Your task to perform on an android device: turn on wifi Image 0: 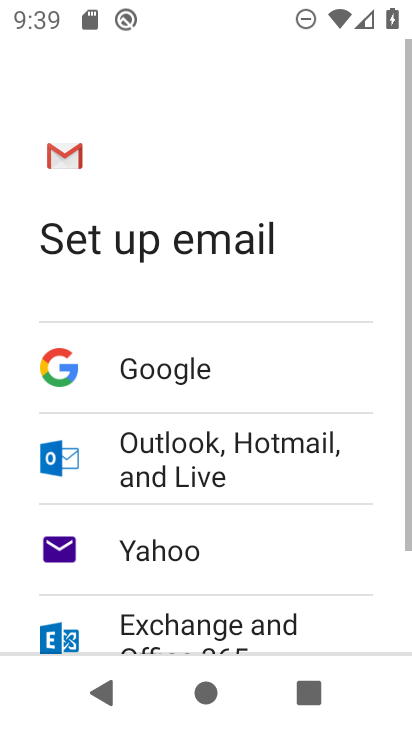
Step 0: press home button
Your task to perform on an android device: turn on wifi Image 1: 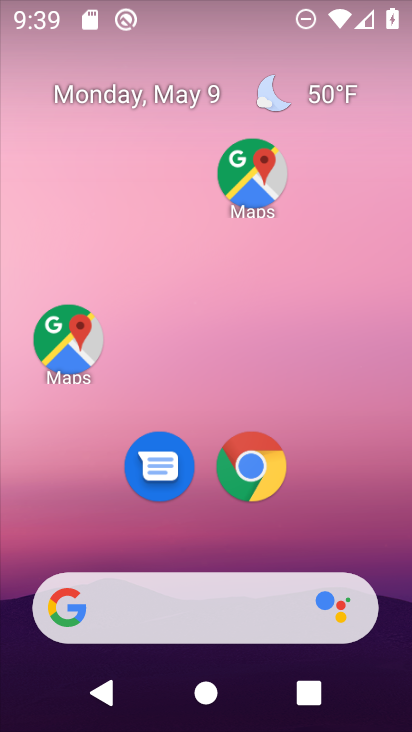
Step 1: drag from (213, 555) to (219, 34)
Your task to perform on an android device: turn on wifi Image 2: 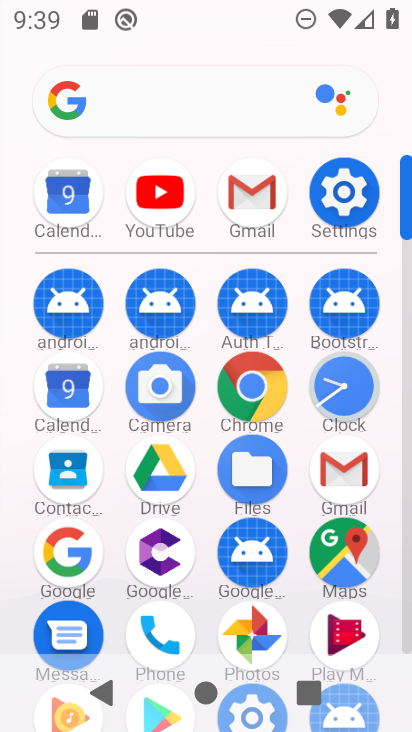
Step 2: click (337, 178)
Your task to perform on an android device: turn on wifi Image 3: 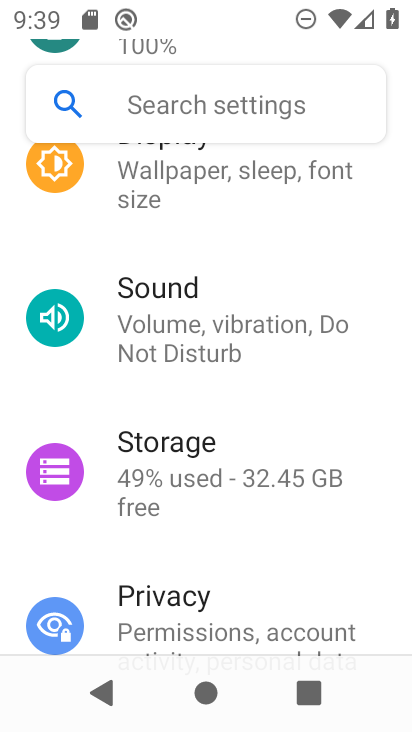
Step 3: drag from (219, 198) to (261, 321)
Your task to perform on an android device: turn on wifi Image 4: 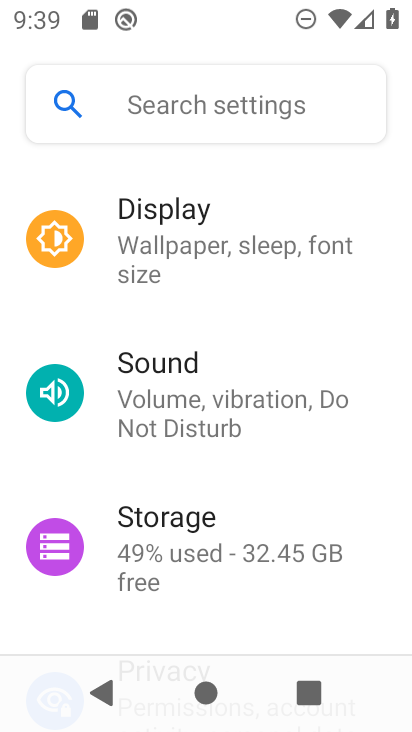
Step 4: drag from (257, 280) to (327, 457)
Your task to perform on an android device: turn on wifi Image 5: 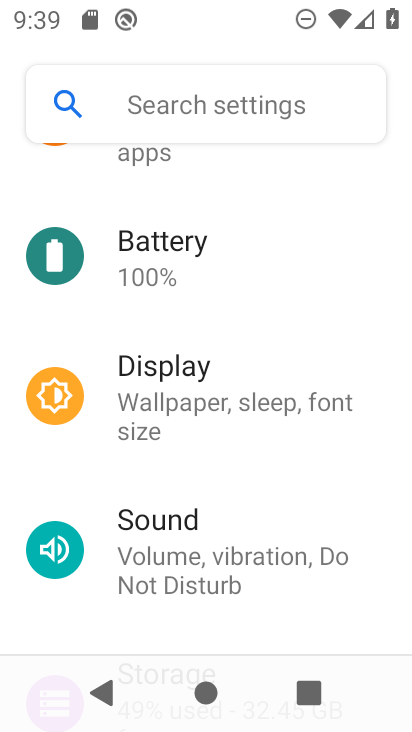
Step 5: drag from (258, 352) to (311, 513)
Your task to perform on an android device: turn on wifi Image 6: 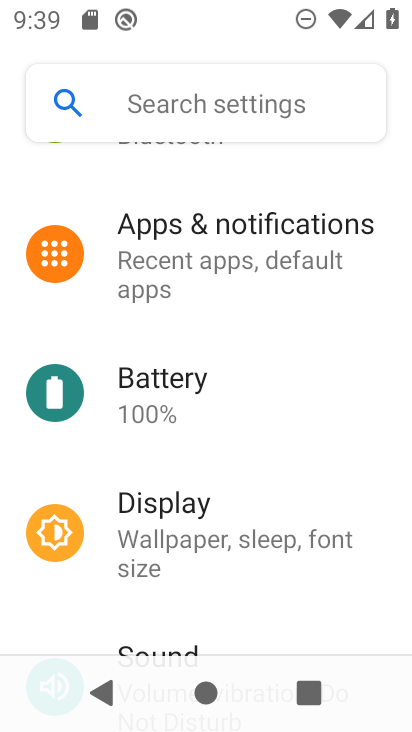
Step 6: drag from (263, 408) to (299, 601)
Your task to perform on an android device: turn on wifi Image 7: 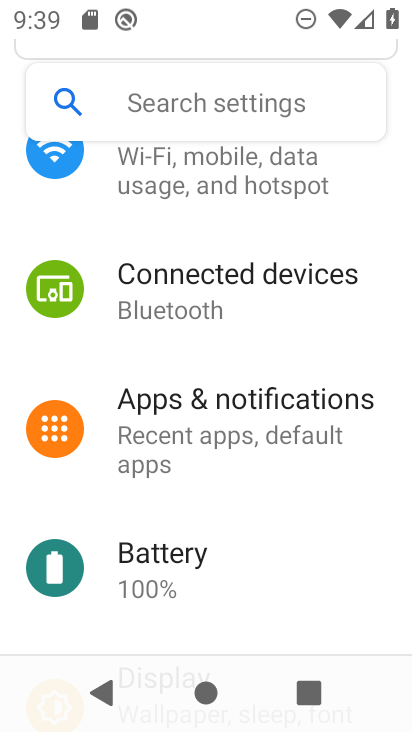
Step 7: drag from (236, 377) to (300, 595)
Your task to perform on an android device: turn on wifi Image 8: 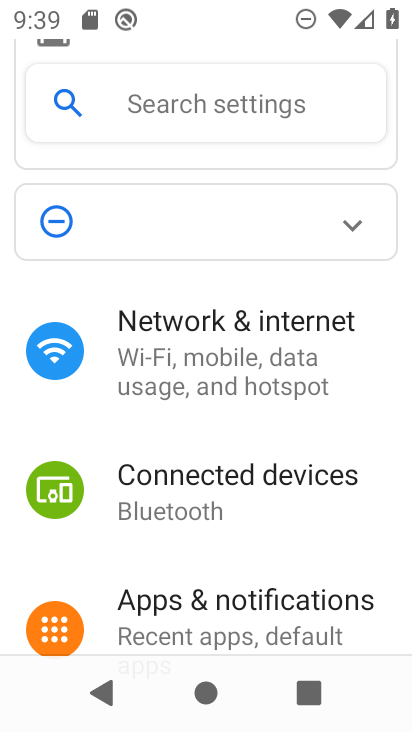
Step 8: click (203, 388)
Your task to perform on an android device: turn on wifi Image 9: 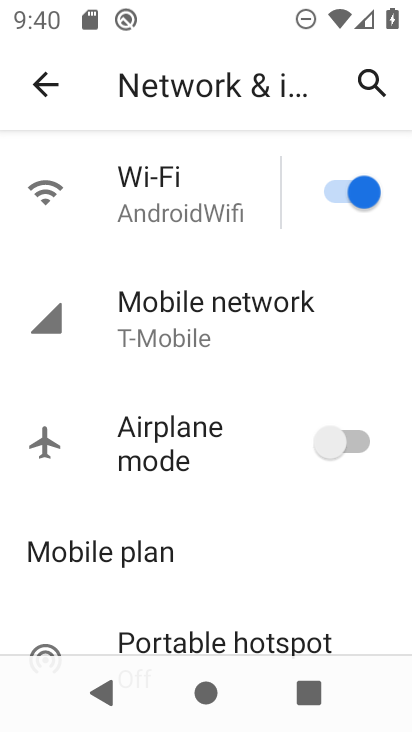
Step 9: task complete